Your task to perform on an android device: show emergency info Image 0: 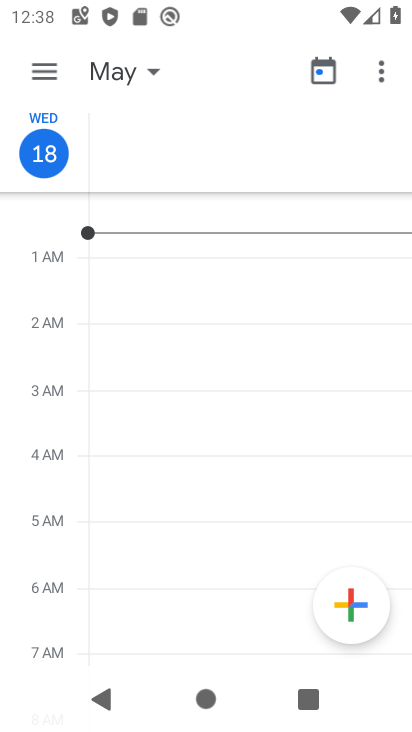
Step 0: press home button
Your task to perform on an android device: show emergency info Image 1: 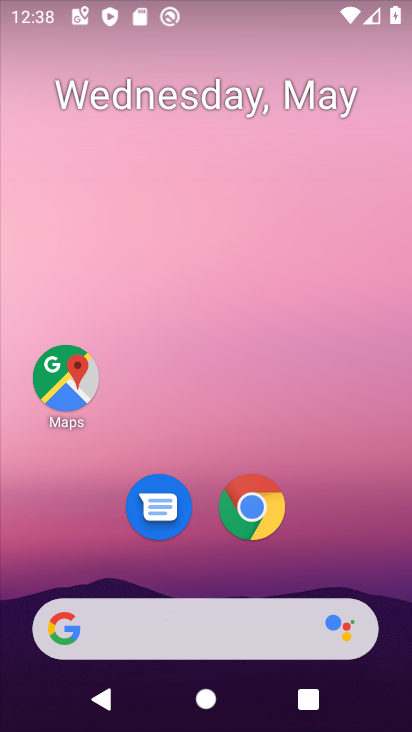
Step 1: drag from (333, 544) to (314, 190)
Your task to perform on an android device: show emergency info Image 2: 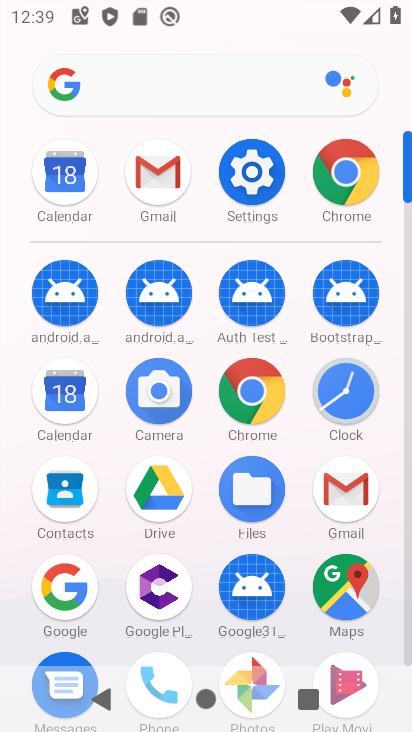
Step 2: drag from (316, 582) to (280, 387)
Your task to perform on an android device: show emergency info Image 3: 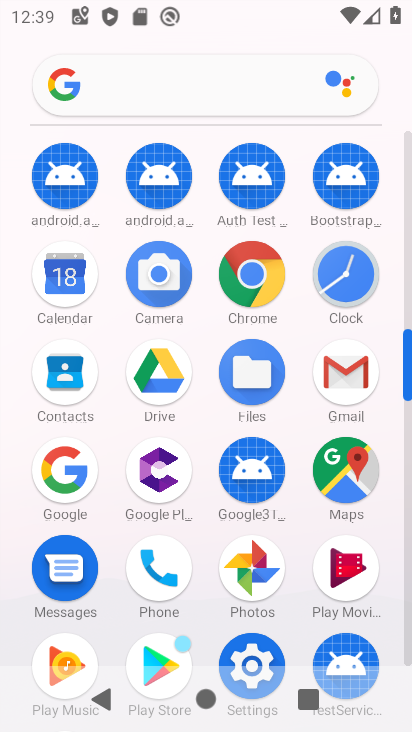
Step 3: click (253, 643)
Your task to perform on an android device: show emergency info Image 4: 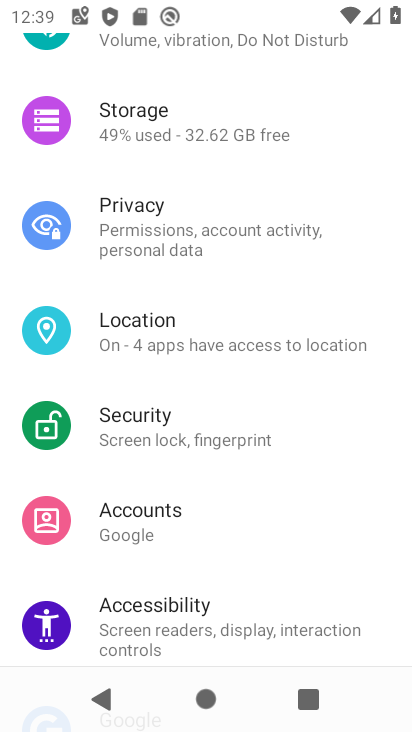
Step 4: drag from (236, 590) to (217, 246)
Your task to perform on an android device: show emergency info Image 5: 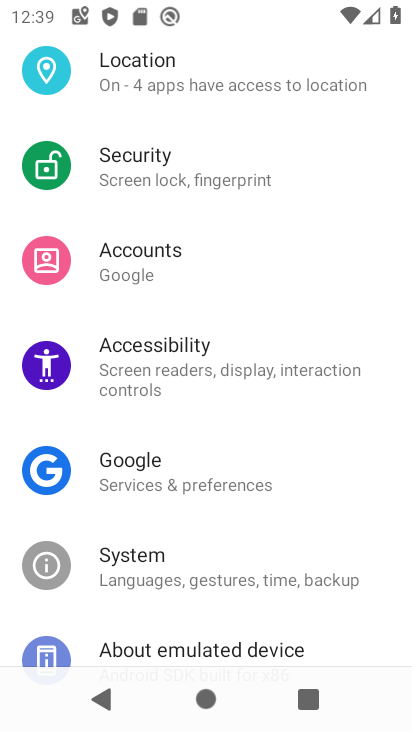
Step 5: drag from (182, 597) to (187, 366)
Your task to perform on an android device: show emergency info Image 6: 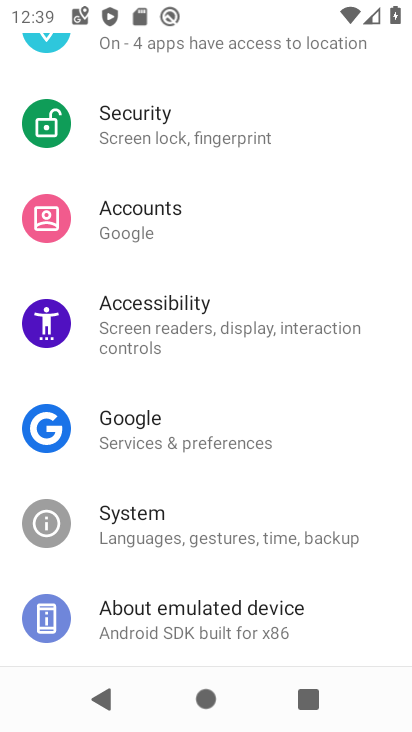
Step 6: click (201, 617)
Your task to perform on an android device: show emergency info Image 7: 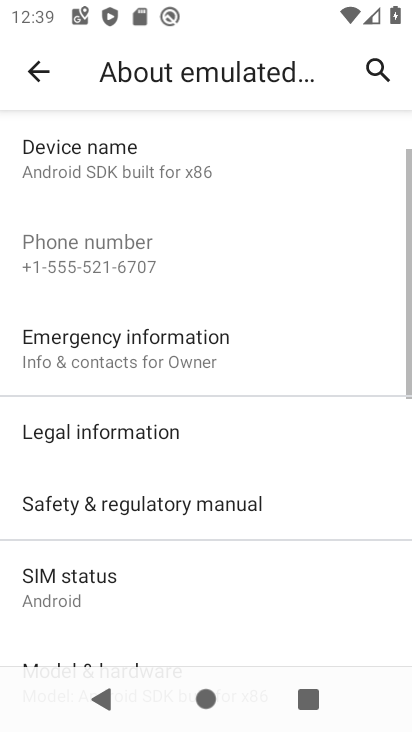
Step 7: click (148, 330)
Your task to perform on an android device: show emergency info Image 8: 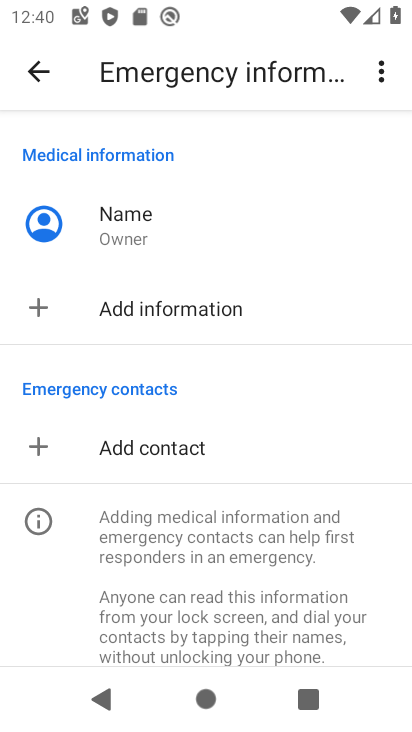
Step 8: task complete